Your task to perform on an android device: turn off location history Image 0: 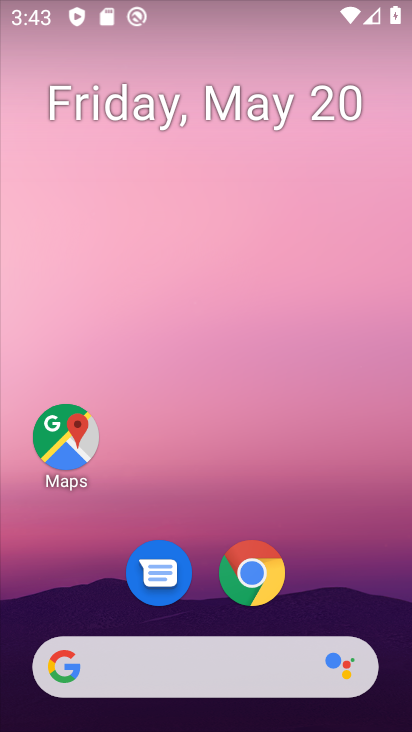
Step 0: drag from (335, 579) to (311, 205)
Your task to perform on an android device: turn off location history Image 1: 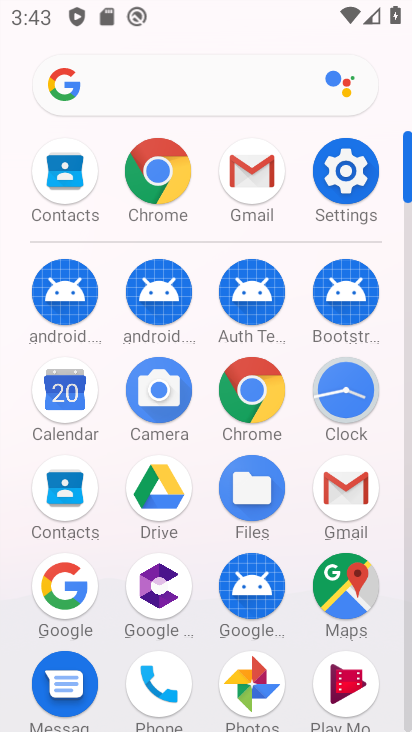
Step 1: click (337, 162)
Your task to perform on an android device: turn off location history Image 2: 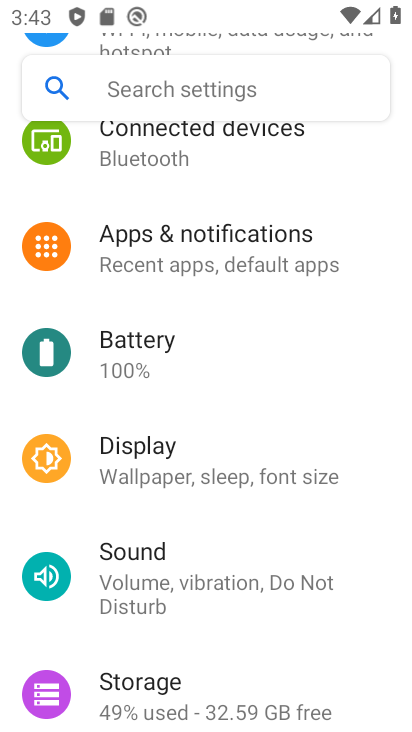
Step 2: drag from (264, 627) to (268, 216)
Your task to perform on an android device: turn off location history Image 3: 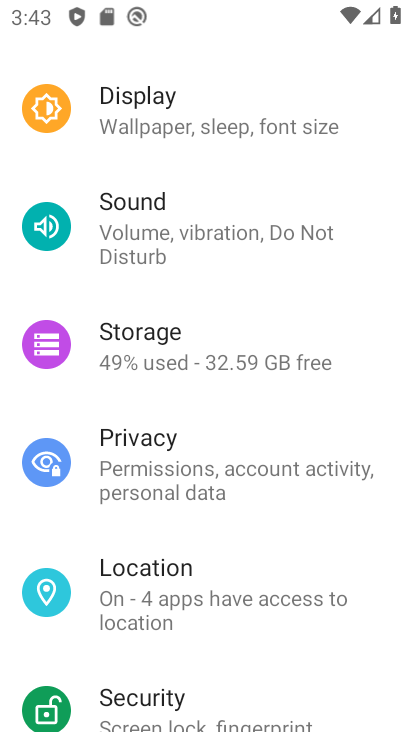
Step 3: click (173, 556)
Your task to perform on an android device: turn off location history Image 4: 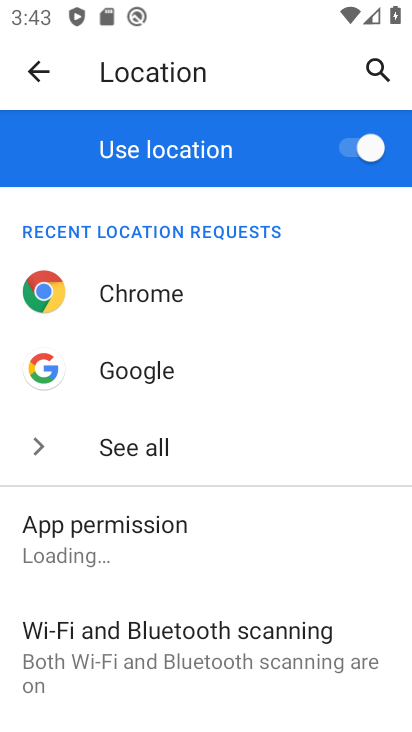
Step 4: drag from (172, 633) to (231, 380)
Your task to perform on an android device: turn off location history Image 5: 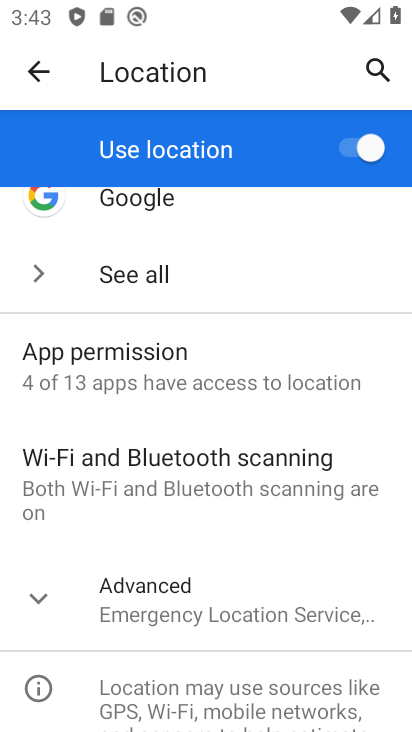
Step 5: click (219, 616)
Your task to perform on an android device: turn off location history Image 6: 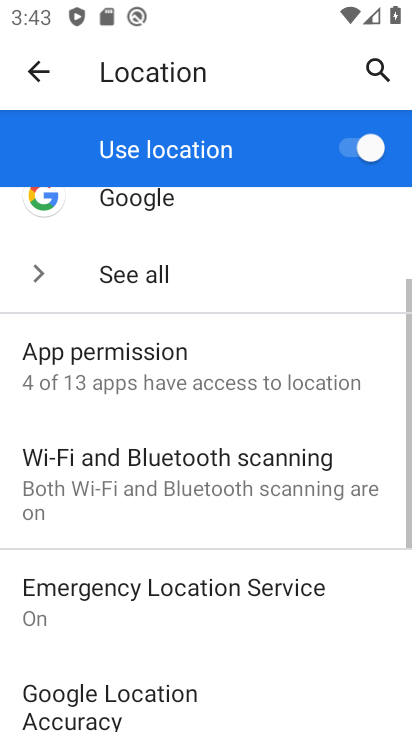
Step 6: drag from (226, 680) to (226, 337)
Your task to perform on an android device: turn off location history Image 7: 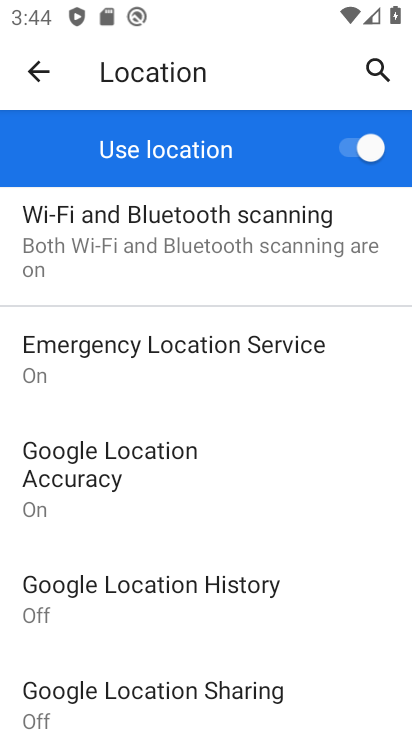
Step 7: click (221, 631)
Your task to perform on an android device: turn off location history Image 8: 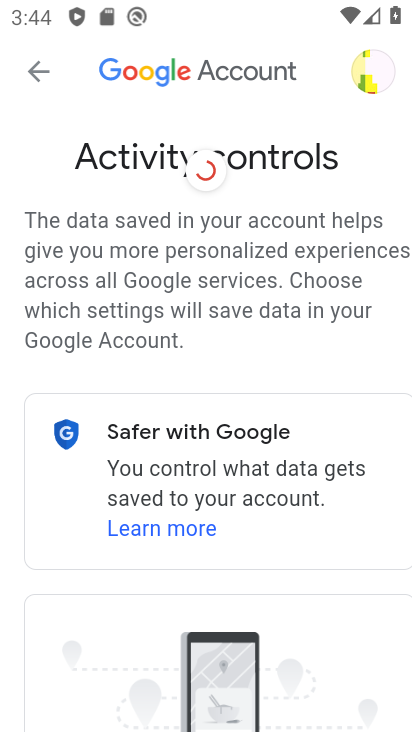
Step 8: task complete